Your task to perform on an android device: Clear the cart on walmart.com. Add razer kraken to the cart on walmart.com Image 0: 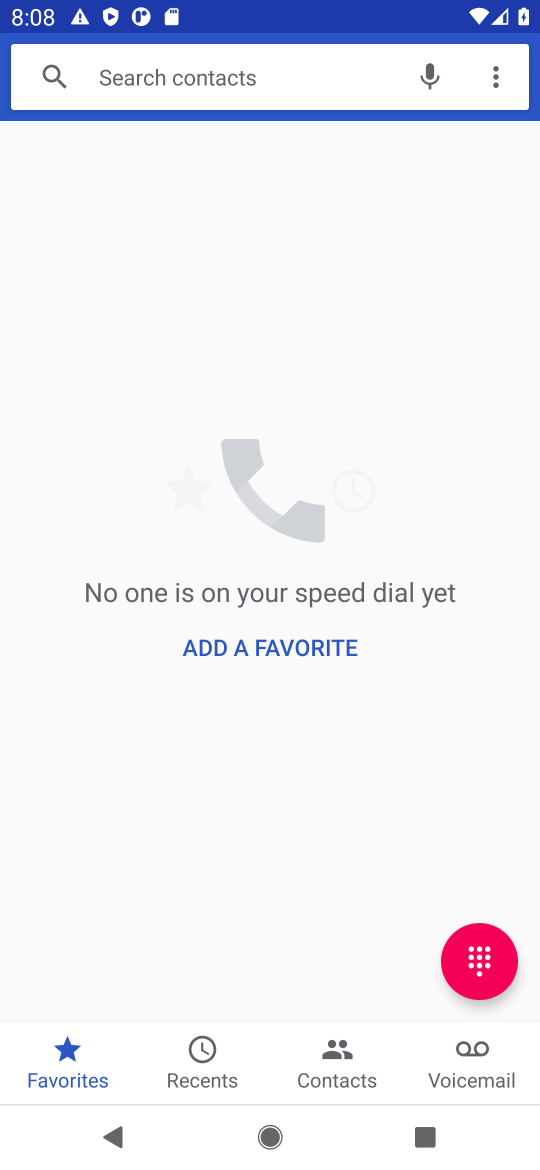
Step 0: press home button
Your task to perform on an android device: Clear the cart on walmart.com. Add razer kraken to the cart on walmart.com Image 1: 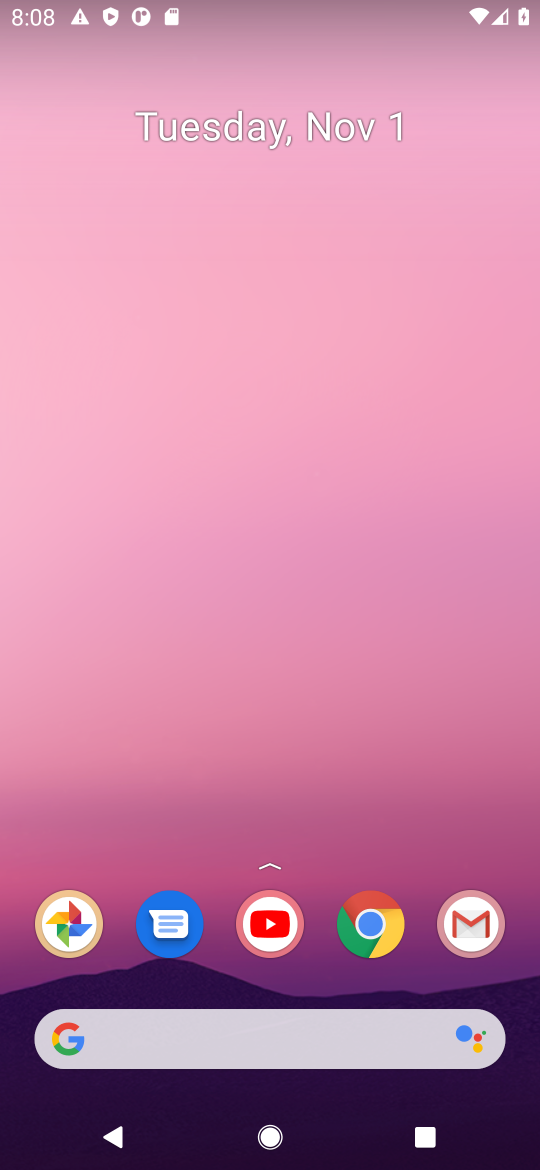
Step 1: click (107, 1041)
Your task to perform on an android device: Clear the cart on walmart.com. Add razer kraken to the cart on walmart.com Image 2: 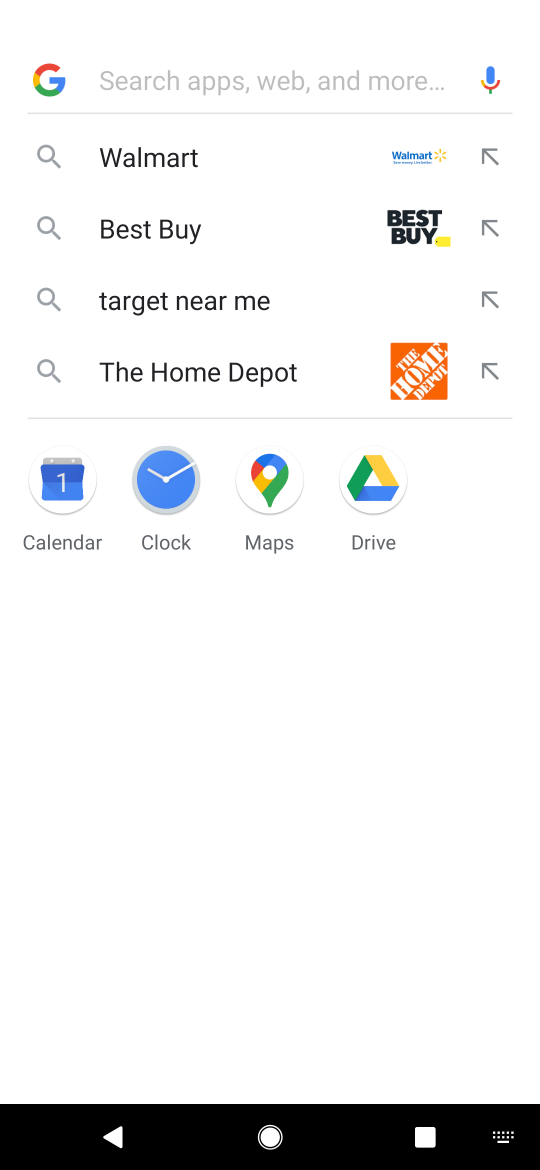
Step 2: click (176, 155)
Your task to perform on an android device: Clear the cart on walmart.com. Add razer kraken to the cart on walmart.com Image 3: 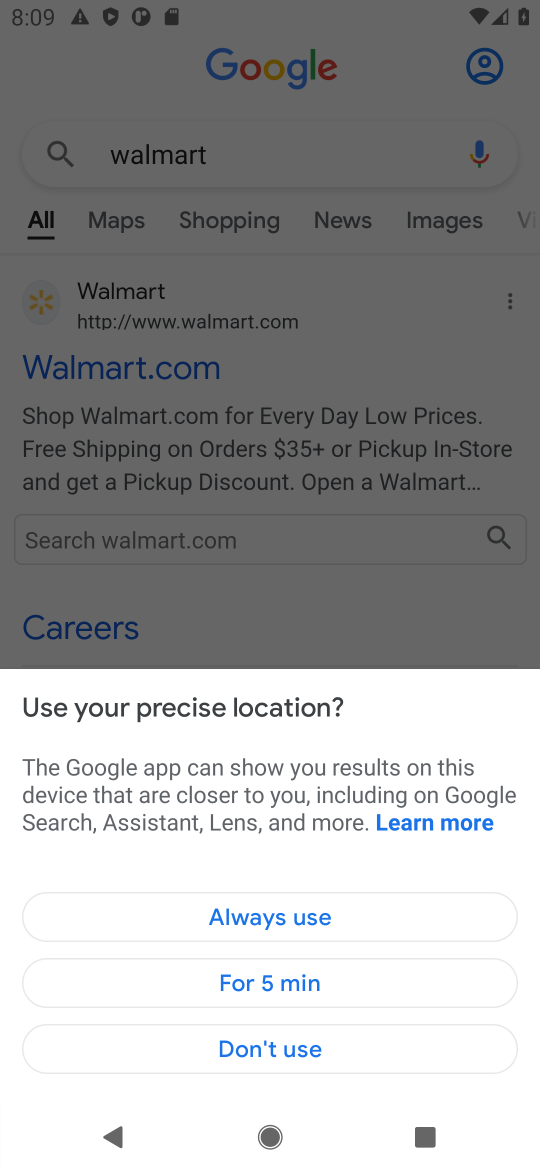
Step 3: click (273, 1056)
Your task to perform on an android device: Clear the cart on walmart.com. Add razer kraken to the cart on walmart.com Image 4: 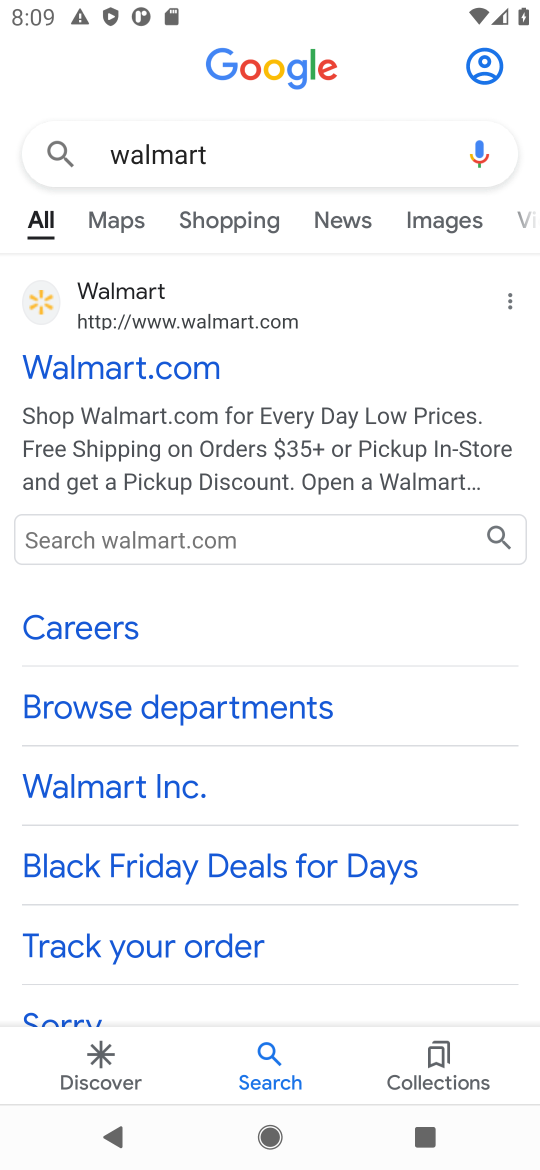
Step 4: click (117, 374)
Your task to perform on an android device: Clear the cart on walmart.com. Add razer kraken to the cart on walmart.com Image 5: 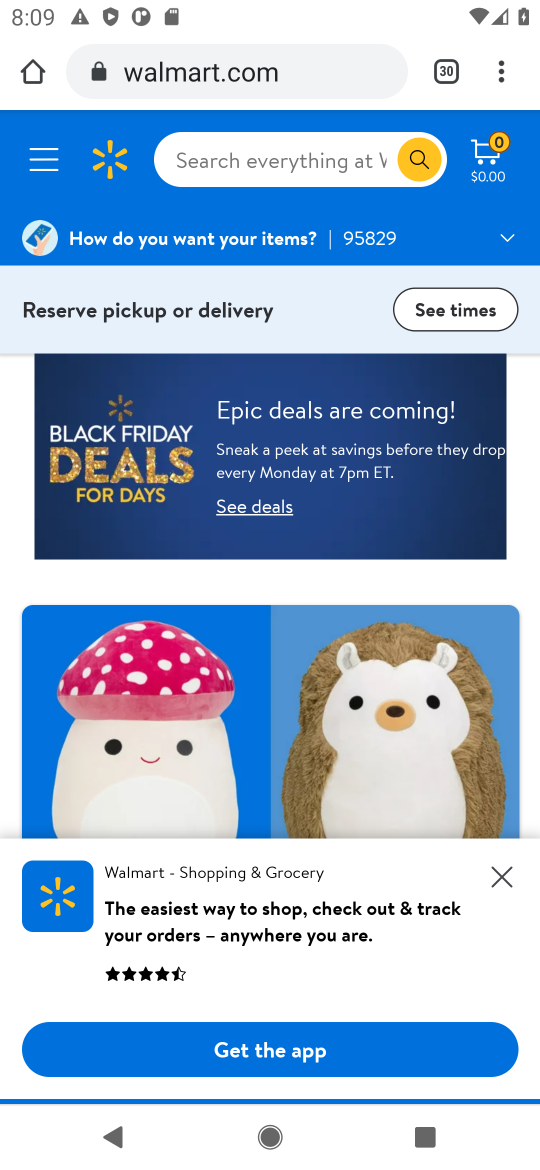
Step 5: click (492, 156)
Your task to perform on an android device: Clear the cart on walmart.com. Add razer kraken to the cart on walmart.com Image 6: 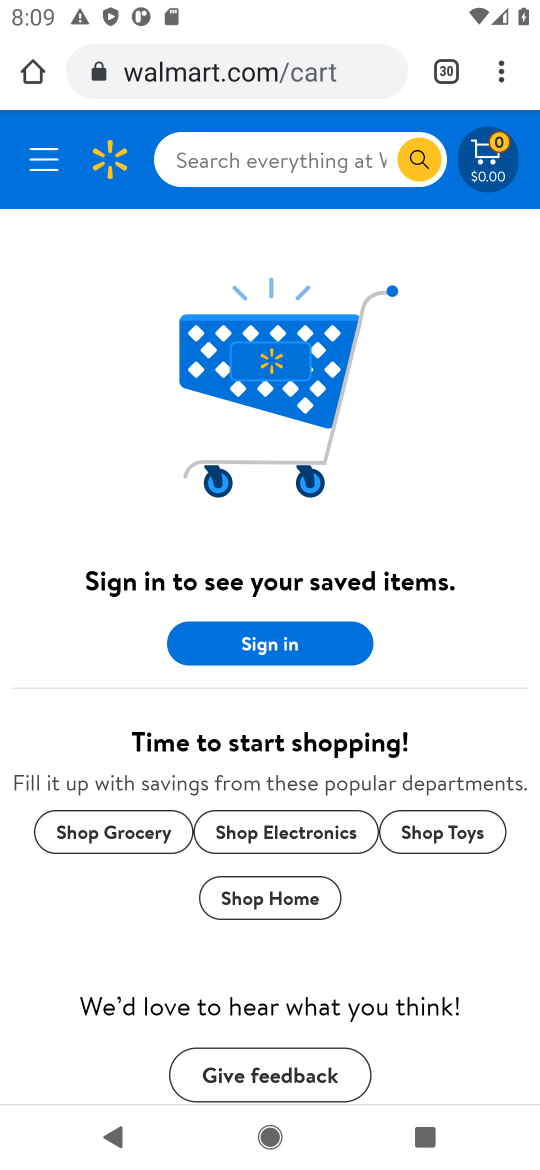
Step 6: click (187, 163)
Your task to perform on an android device: Clear the cart on walmart.com. Add razer kraken to the cart on walmart.com Image 7: 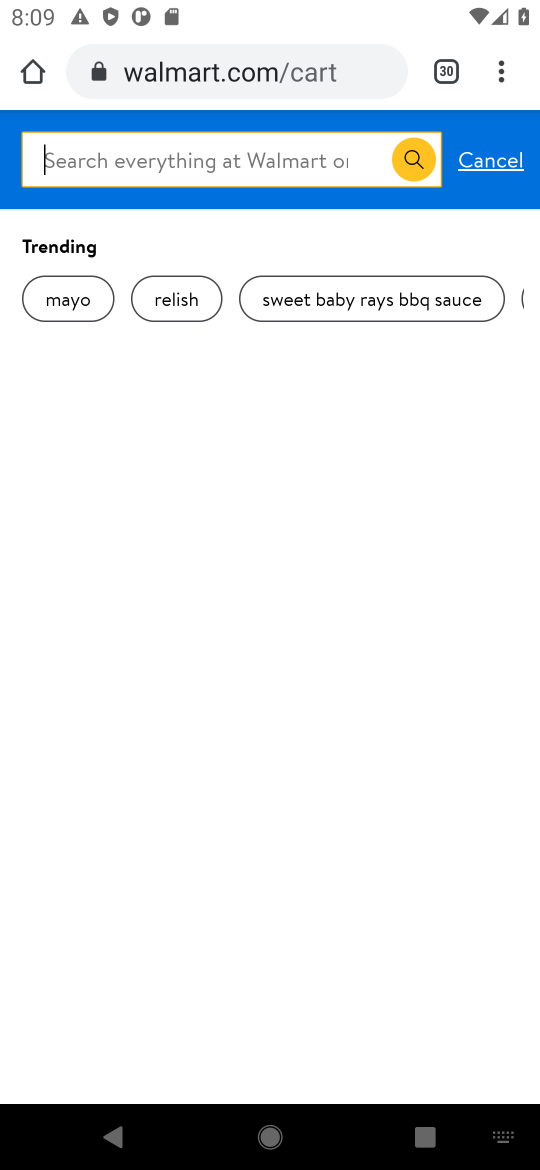
Step 7: type "razer kraken"
Your task to perform on an android device: Clear the cart on walmart.com. Add razer kraken to the cart on walmart.com Image 8: 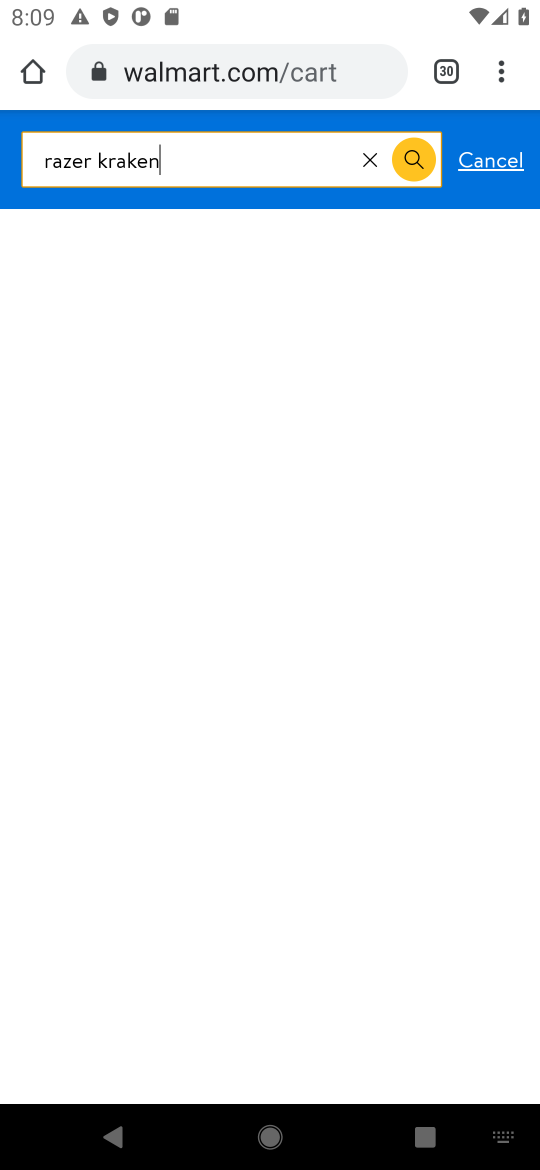
Step 8: press enter
Your task to perform on an android device: Clear the cart on walmart.com. Add razer kraken to the cart on walmart.com Image 9: 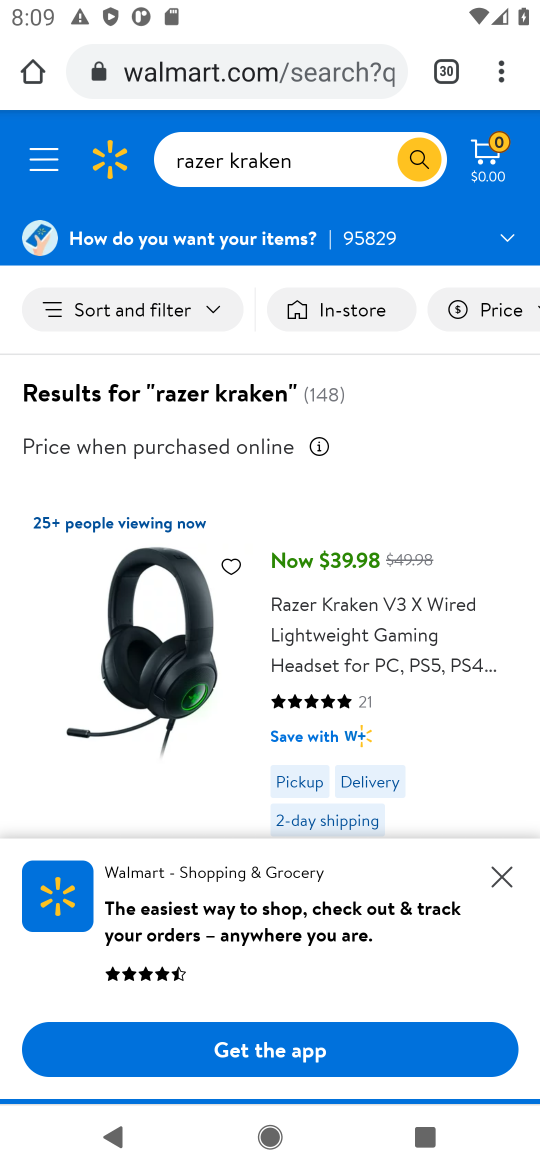
Step 9: click (502, 875)
Your task to perform on an android device: Clear the cart on walmart.com. Add razer kraken to the cart on walmart.com Image 10: 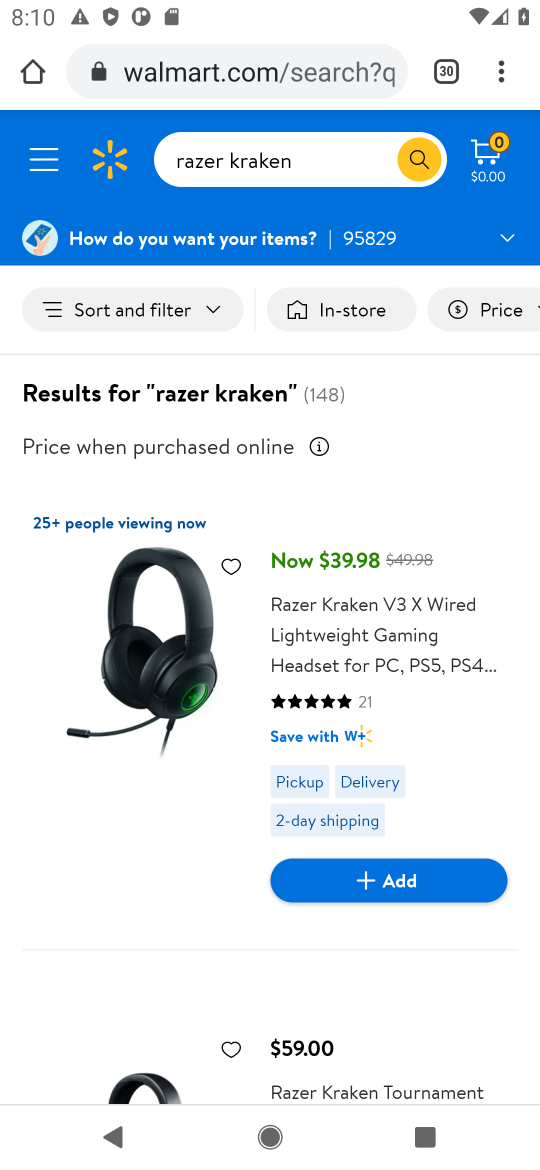
Step 10: click (415, 882)
Your task to perform on an android device: Clear the cart on walmart.com. Add razer kraken to the cart on walmart.com Image 11: 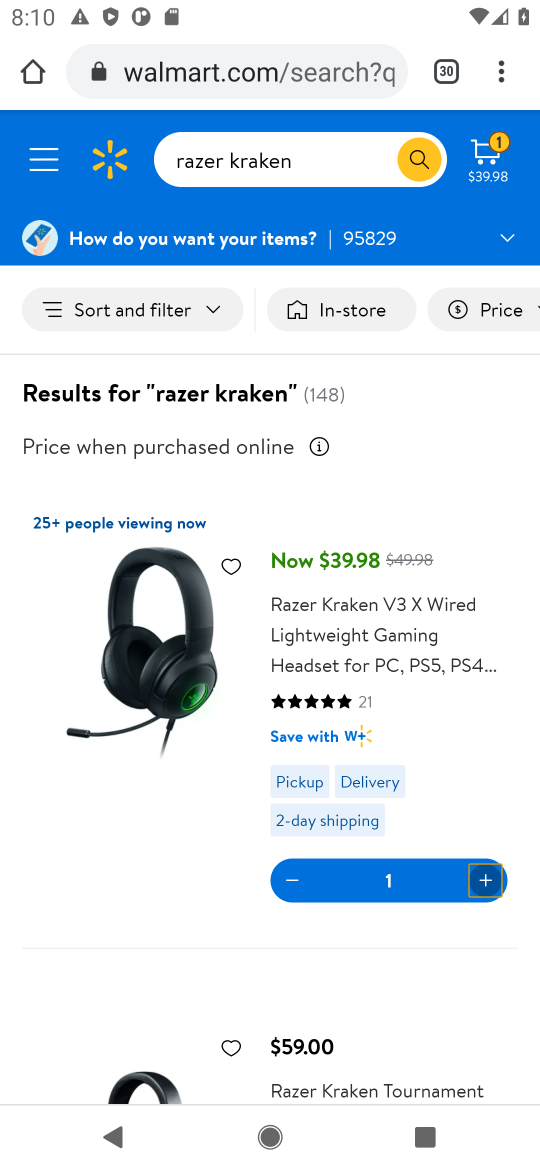
Step 11: task complete